Your task to perform on an android device: Show me productivity apps on the Play Store Image 0: 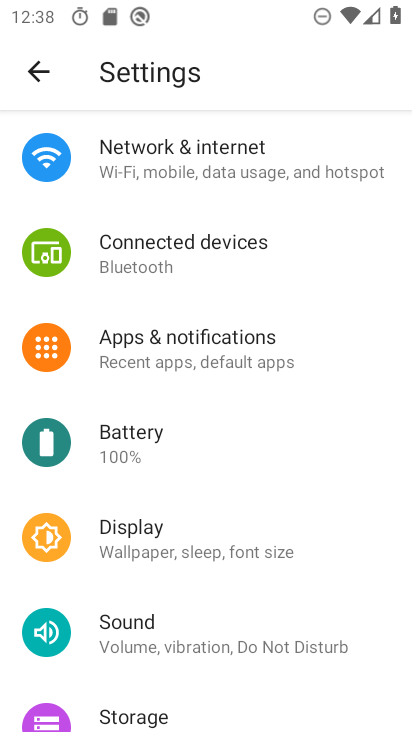
Step 0: press home button
Your task to perform on an android device: Show me productivity apps on the Play Store Image 1: 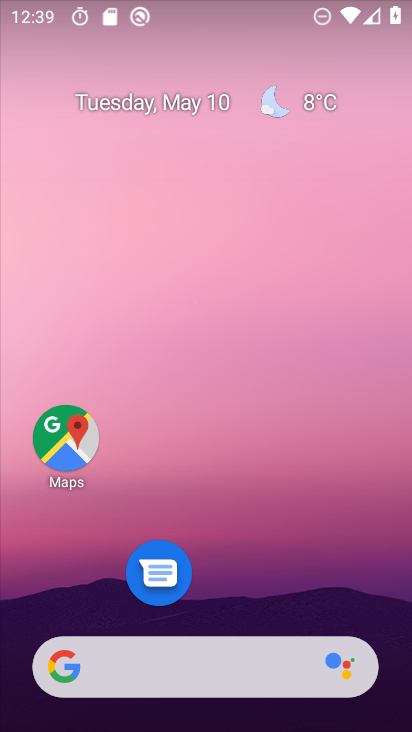
Step 1: drag from (231, 603) to (290, 84)
Your task to perform on an android device: Show me productivity apps on the Play Store Image 2: 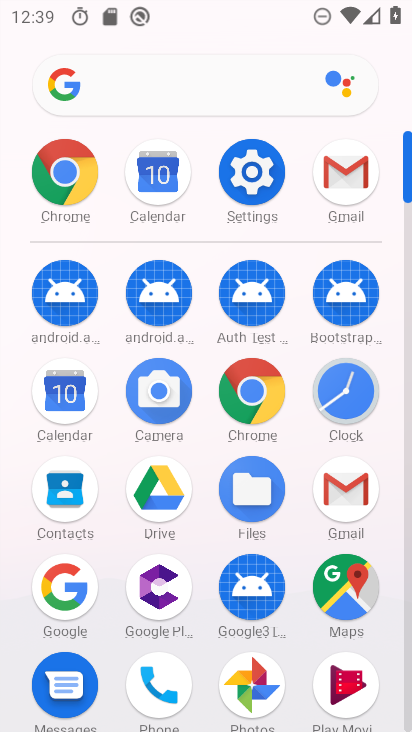
Step 2: drag from (184, 640) to (209, 401)
Your task to perform on an android device: Show me productivity apps on the Play Store Image 3: 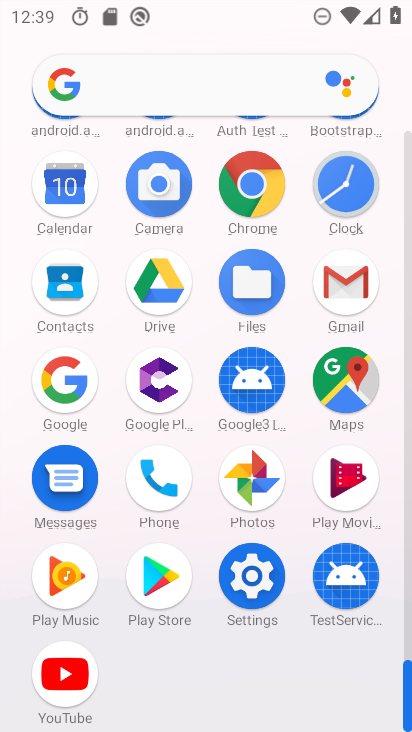
Step 3: click (166, 604)
Your task to perform on an android device: Show me productivity apps on the Play Store Image 4: 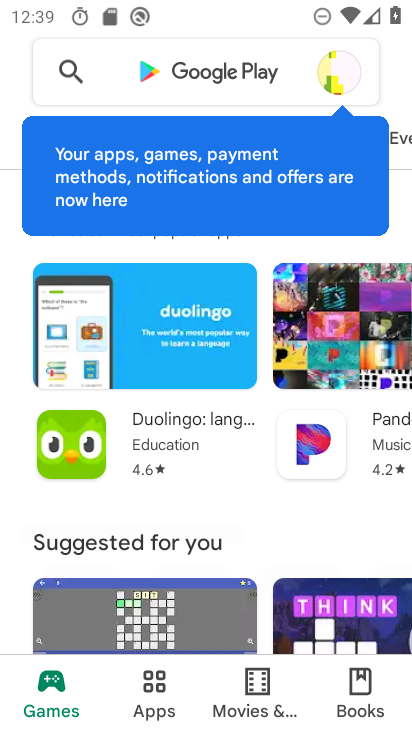
Step 4: click (146, 668)
Your task to perform on an android device: Show me productivity apps on the Play Store Image 5: 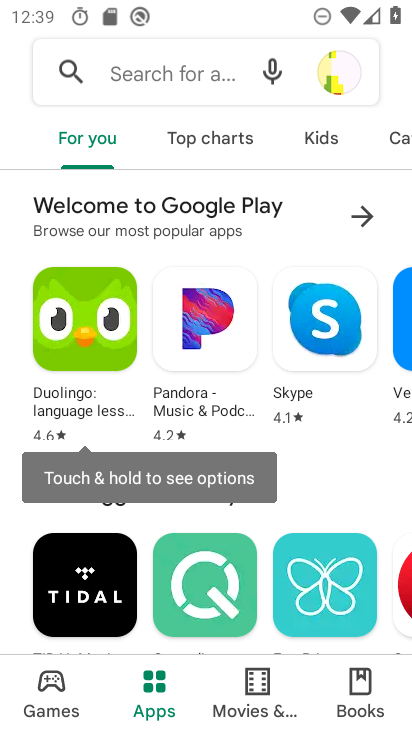
Step 5: click (395, 137)
Your task to perform on an android device: Show me productivity apps on the Play Store Image 6: 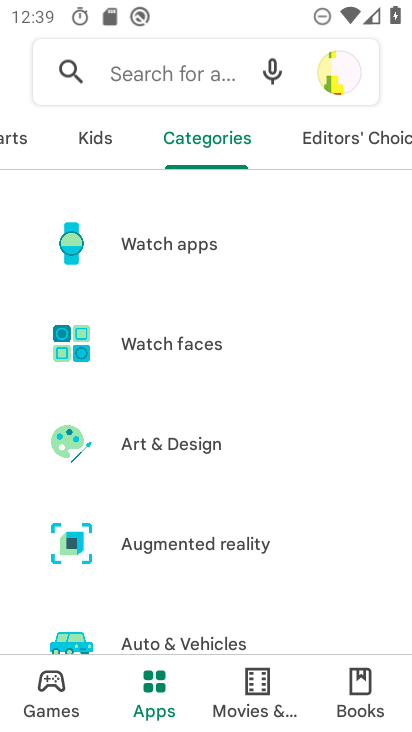
Step 6: drag from (123, 489) to (197, 176)
Your task to perform on an android device: Show me productivity apps on the Play Store Image 7: 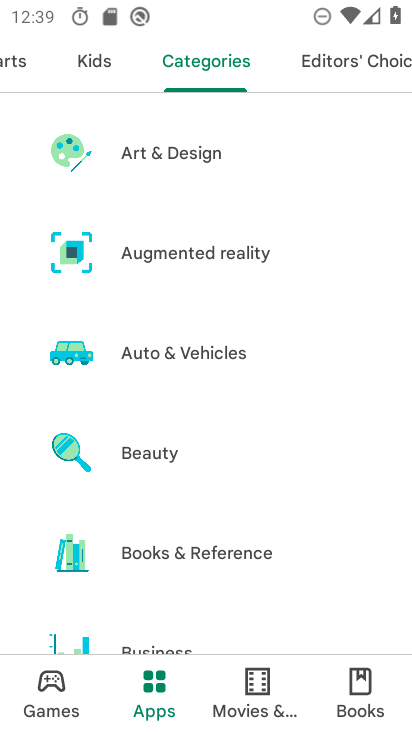
Step 7: drag from (231, 470) to (300, 47)
Your task to perform on an android device: Show me productivity apps on the Play Store Image 8: 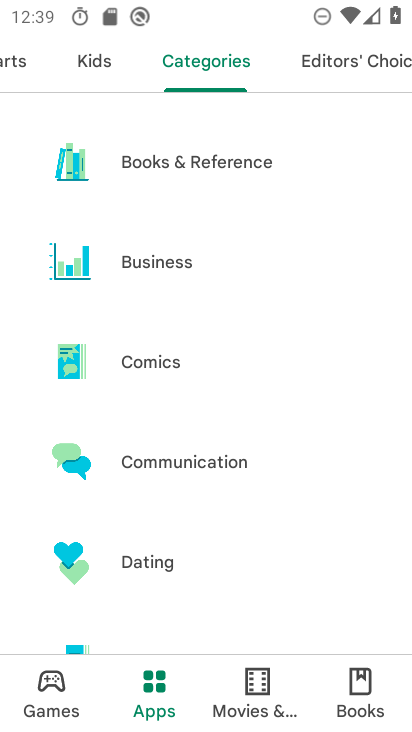
Step 8: drag from (195, 552) to (294, 38)
Your task to perform on an android device: Show me productivity apps on the Play Store Image 9: 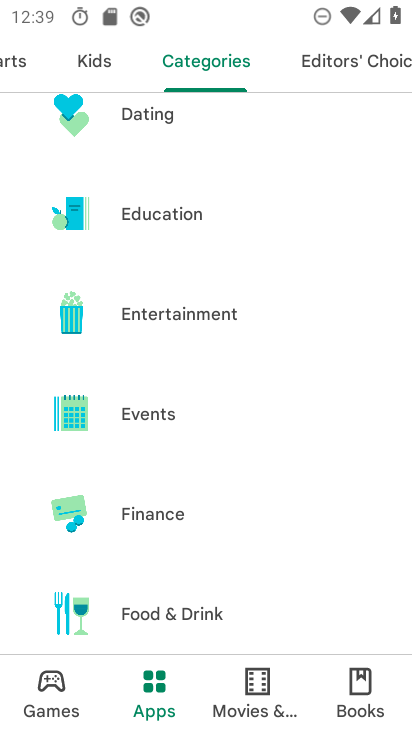
Step 9: drag from (164, 545) to (254, 46)
Your task to perform on an android device: Show me productivity apps on the Play Store Image 10: 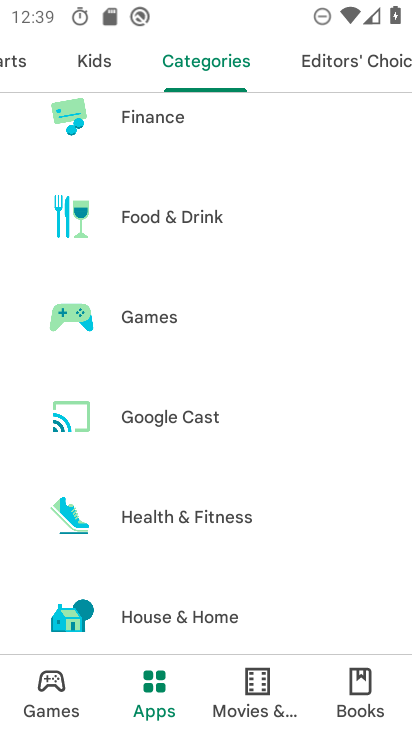
Step 10: drag from (162, 552) to (247, 85)
Your task to perform on an android device: Show me productivity apps on the Play Store Image 11: 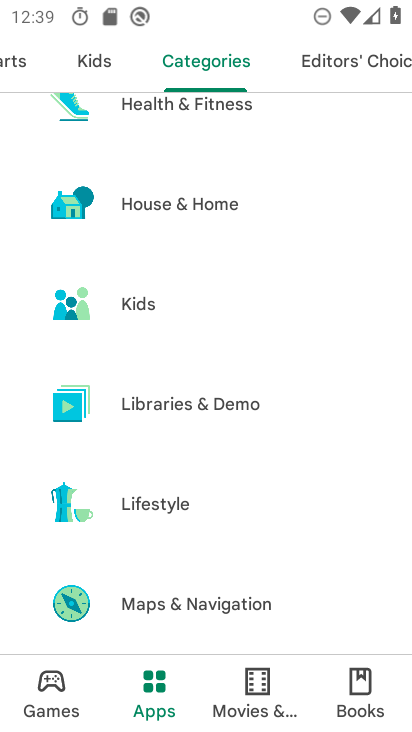
Step 11: drag from (166, 547) to (239, 147)
Your task to perform on an android device: Show me productivity apps on the Play Store Image 12: 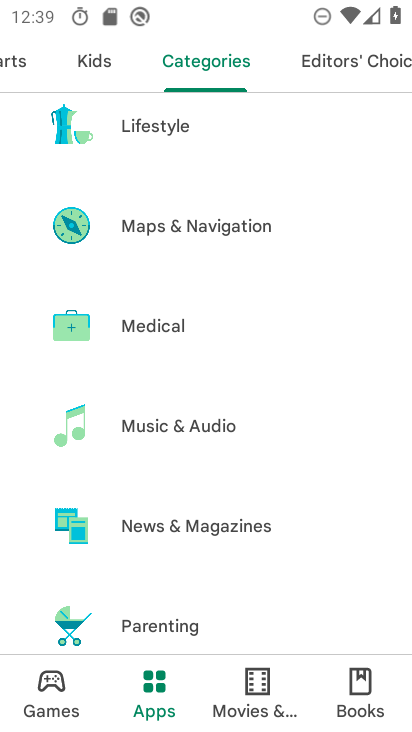
Step 12: drag from (219, 572) to (263, 174)
Your task to perform on an android device: Show me productivity apps on the Play Store Image 13: 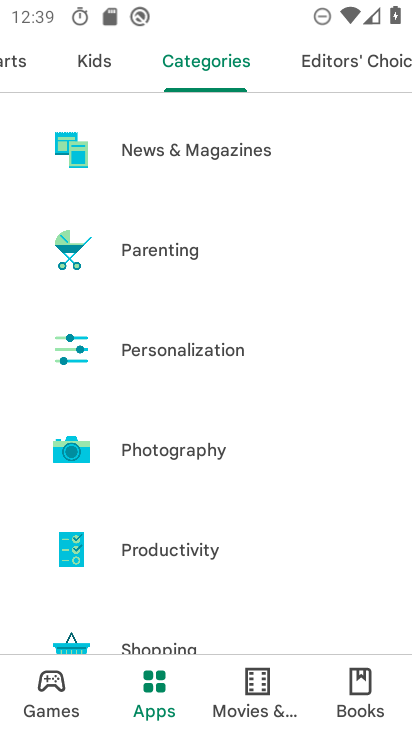
Step 13: click (156, 569)
Your task to perform on an android device: Show me productivity apps on the Play Store Image 14: 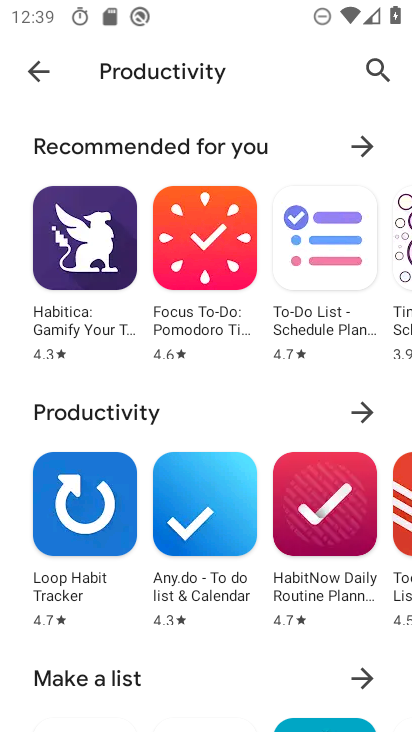
Step 14: task complete